Your task to perform on an android device: Open wifi settings Image 0: 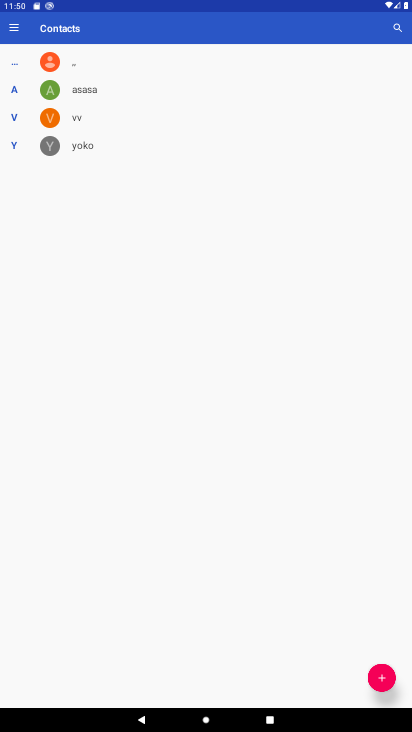
Step 0: press home button
Your task to perform on an android device: Open wifi settings Image 1: 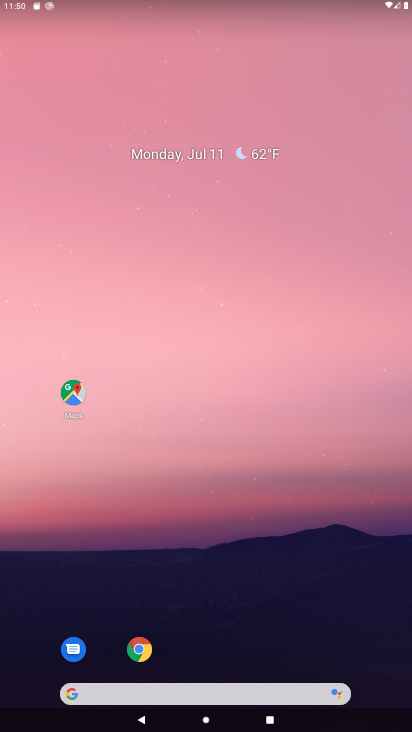
Step 1: drag from (237, 578) to (187, 142)
Your task to perform on an android device: Open wifi settings Image 2: 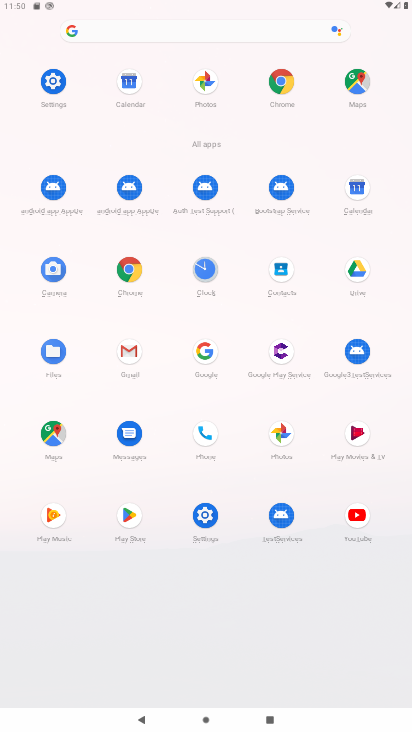
Step 2: click (51, 83)
Your task to perform on an android device: Open wifi settings Image 3: 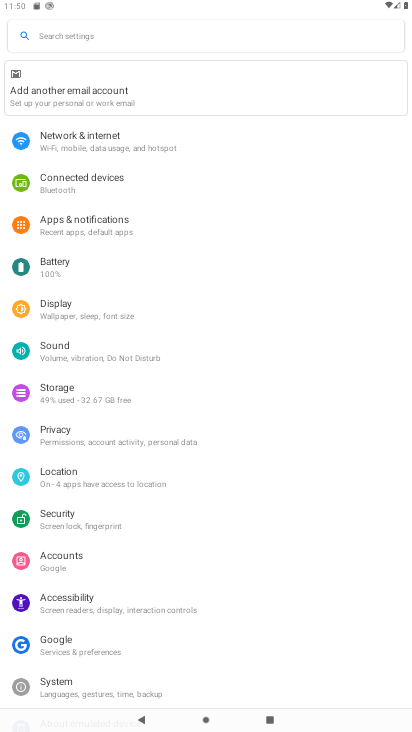
Step 3: click (99, 138)
Your task to perform on an android device: Open wifi settings Image 4: 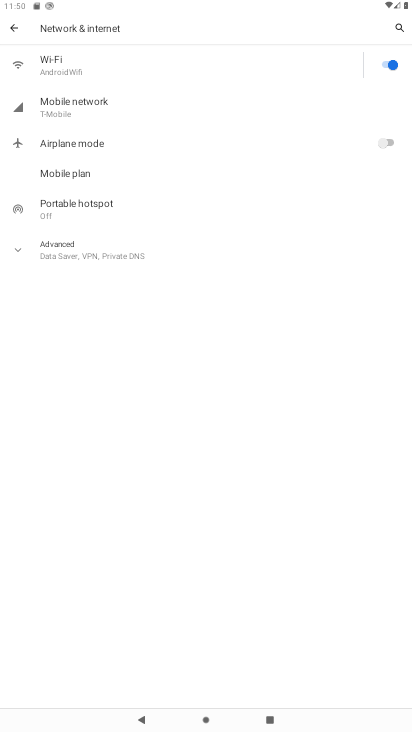
Step 4: click (72, 64)
Your task to perform on an android device: Open wifi settings Image 5: 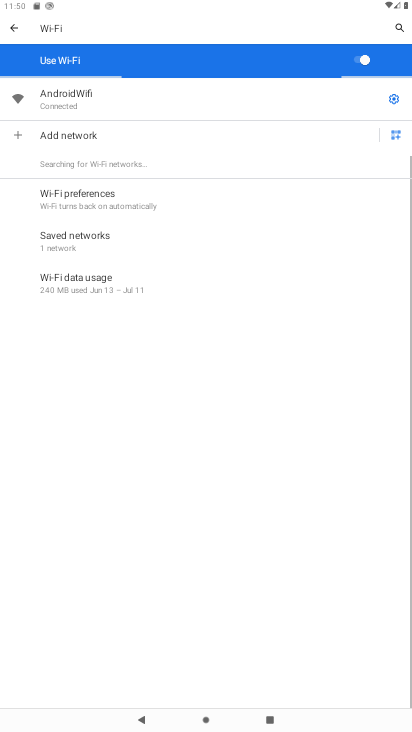
Step 5: task complete